Your task to perform on an android device: search for starred emails in the gmail app Image 0: 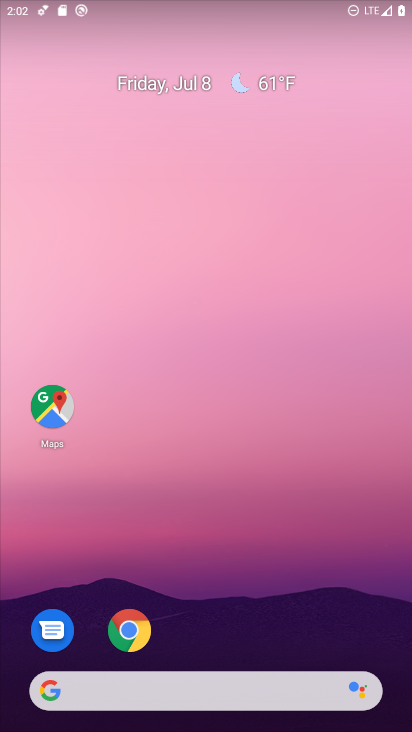
Step 0: drag from (388, 676) to (320, 24)
Your task to perform on an android device: search for starred emails in the gmail app Image 1: 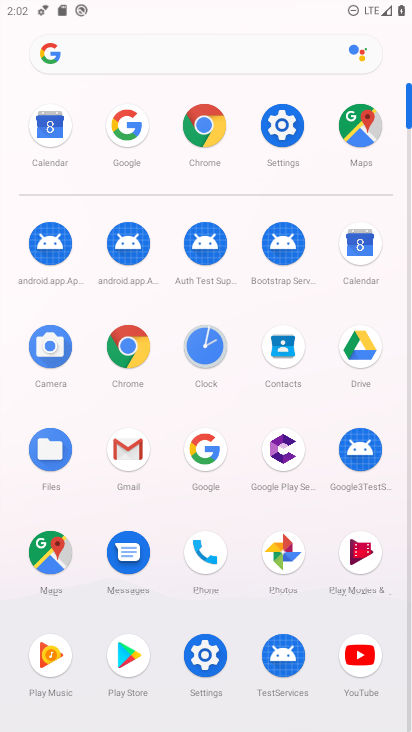
Step 1: click (146, 449)
Your task to perform on an android device: search for starred emails in the gmail app Image 2: 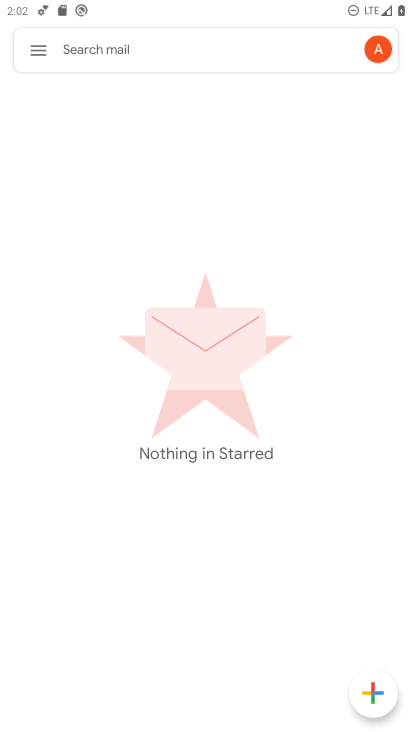
Step 2: click (32, 43)
Your task to perform on an android device: search for starred emails in the gmail app Image 3: 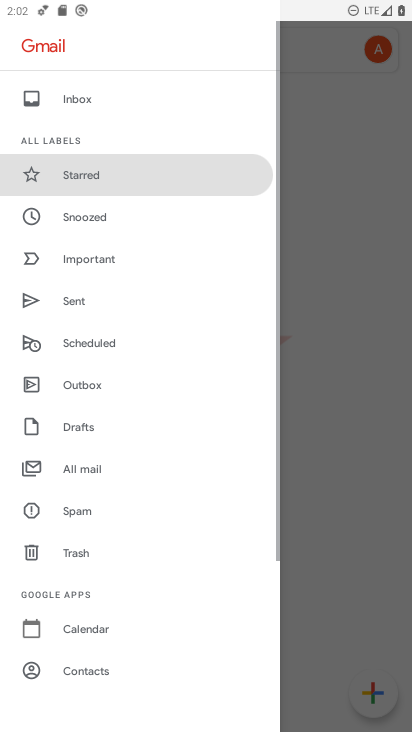
Step 3: click (75, 170)
Your task to perform on an android device: search for starred emails in the gmail app Image 4: 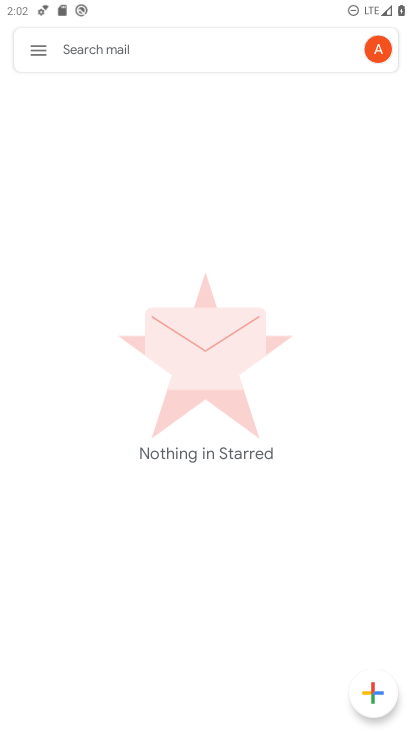
Step 4: task complete